Your task to perform on an android device: Find coffee shops on Maps Image 0: 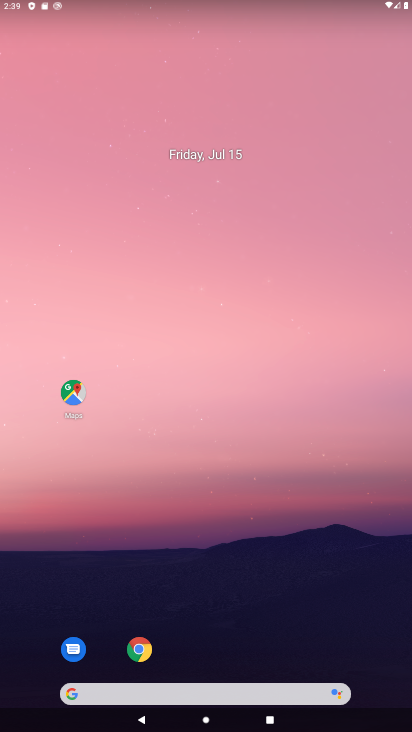
Step 0: drag from (278, 673) to (243, 299)
Your task to perform on an android device: Find coffee shops on Maps Image 1: 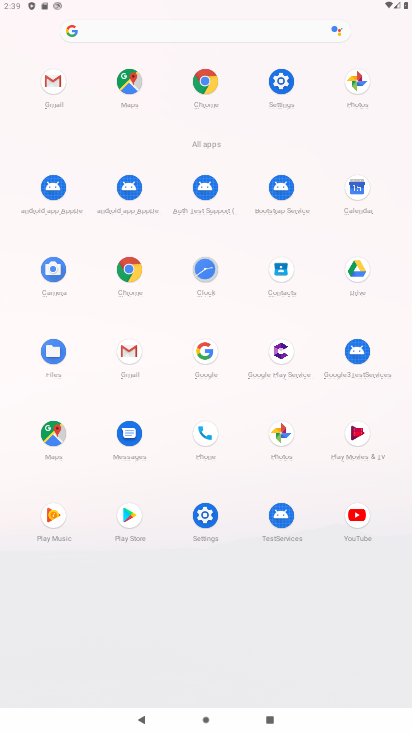
Step 1: click (57, 432)
Your task to perform on an android device: Find coffee shops on Maps Image 2: 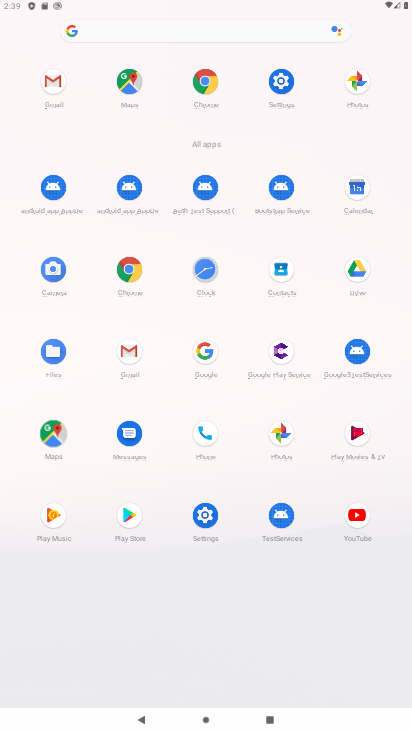
Step 2: click (57, 432)
Your task to perform on an android device: Find coffee shops on Maps Image 3: 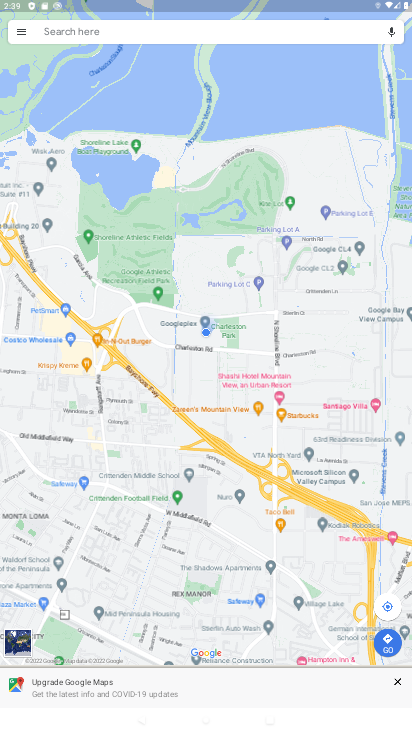
Step 3: click (80, 33)
Your task to perform on an android device: Find coffee shops on Maps Image 4: 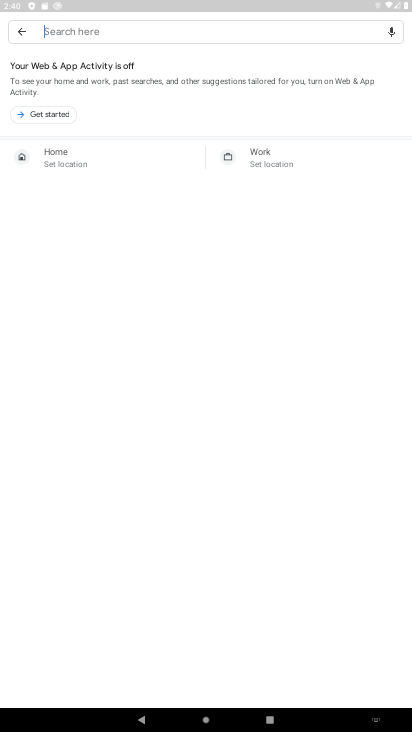
Step 4: type "Coffee"
Your task to perform on an android device: Find coffee shops on Maps Image 5: 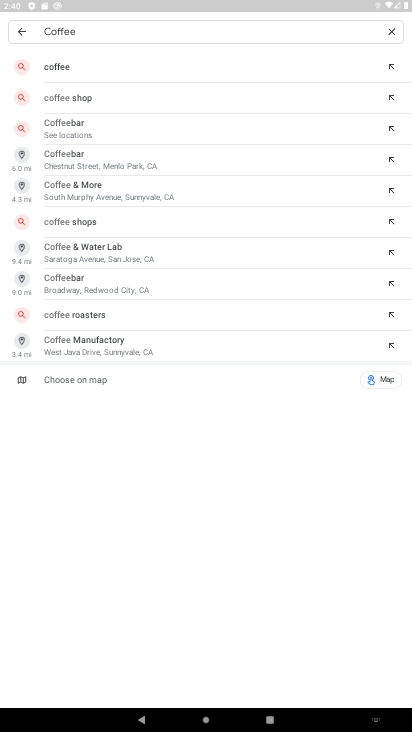
Step 5: click (68, 66)
Your task to perform on an android device: Find coffee shops on Maps Image 6: 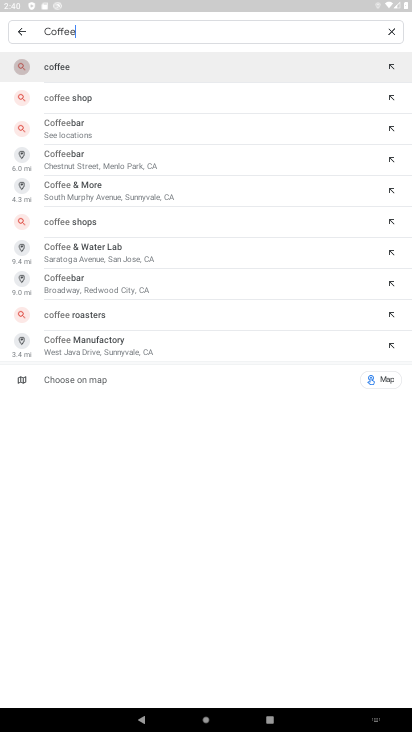
Step 6: click (66, 73)
Your task to perform on an android device: Find coffee shops on Maps Image 7: 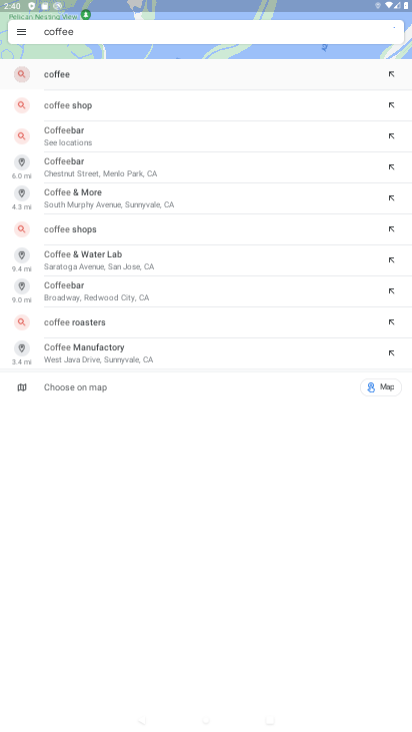
Step 7: click (69, 68)
Your task to perform on an android device: Find coffee shops on Maps Image 8: 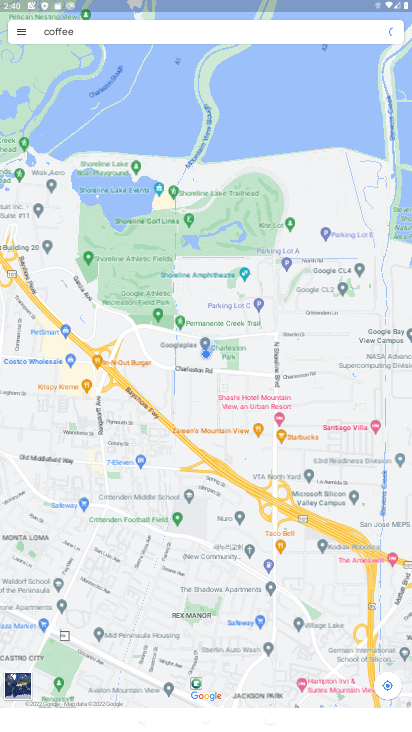
Step 8: task complete